Your task to perform on an android device: toggle improve location accuracy Image 0: 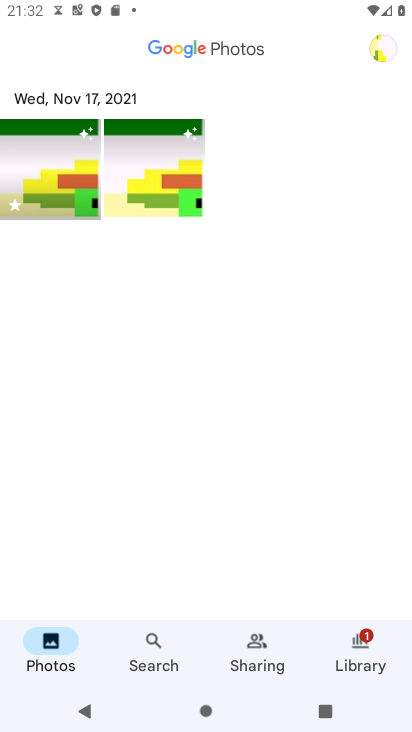
Step 0: press home button
Your task to perform on an android device: toggle improve location accuracy Image 1: 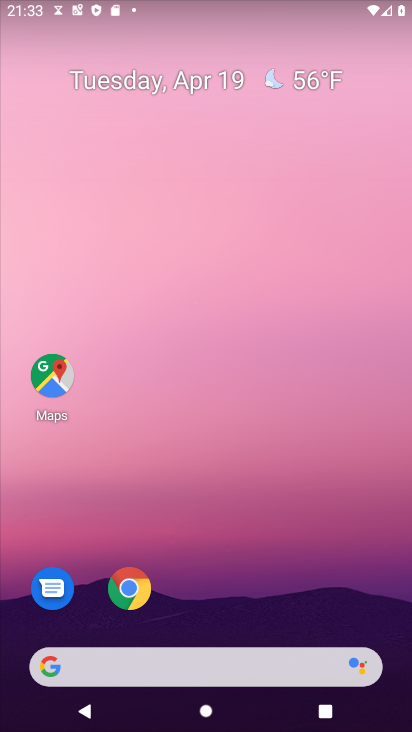
Step 1: drag from (203, 603) to (291, 43)
Your task to perform on an android device: toggle improve location accuracy Image 2: 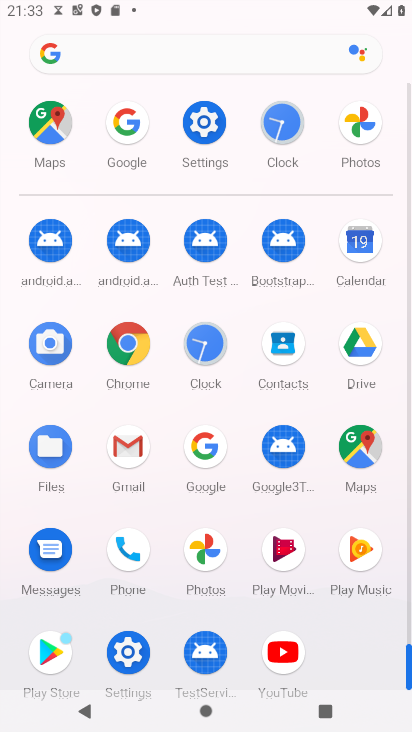
Step 2: click (203, 122)
Your task to perform on an android device: toggle improve location accuracy Image 3: 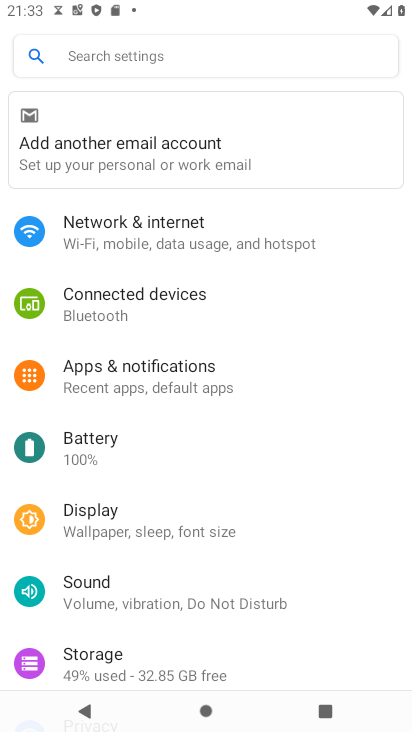
Step 3: drag from (168, 498) to (233, 396)
Your task to perform on an android device: toggle improve location accuracy Image 4: 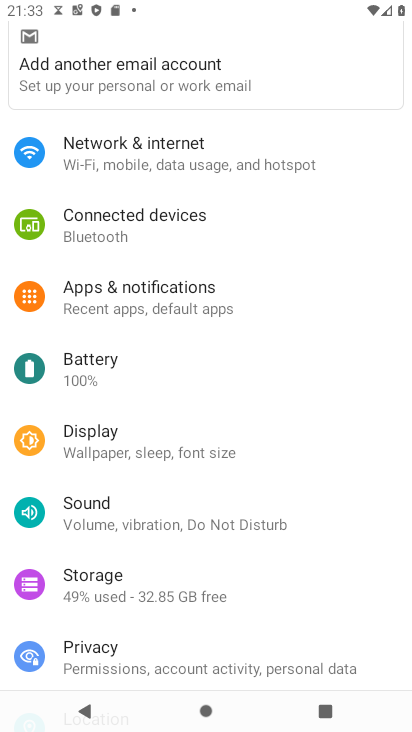
Step 4: drag from (152, 488) to (200, 370)
Your task to perform on an android device: toggle improve location accuracy Image 5: 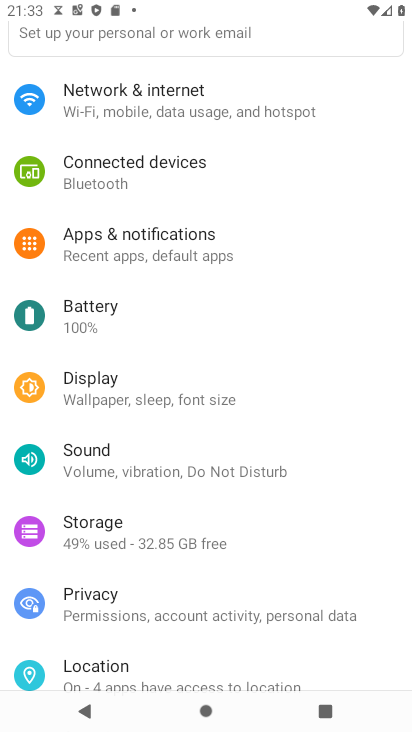
Step 5: drag from (169, 570) to (257, 445)
Your task to perform on an android device: toggle improve location accuracy Image 6: 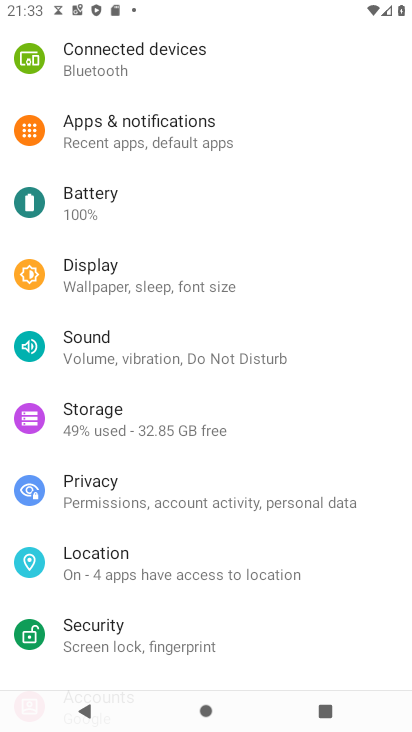
Step 6: click (146, 568)
Your task to perform on an android device: toggle improve location accuracy Image 7: 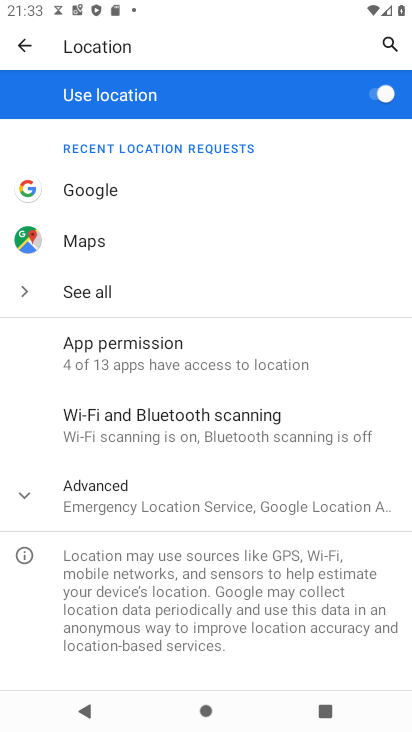
Step 7: click (151, 506)
Your task to perform on an android device: toggle improve location accuracy Image 8: 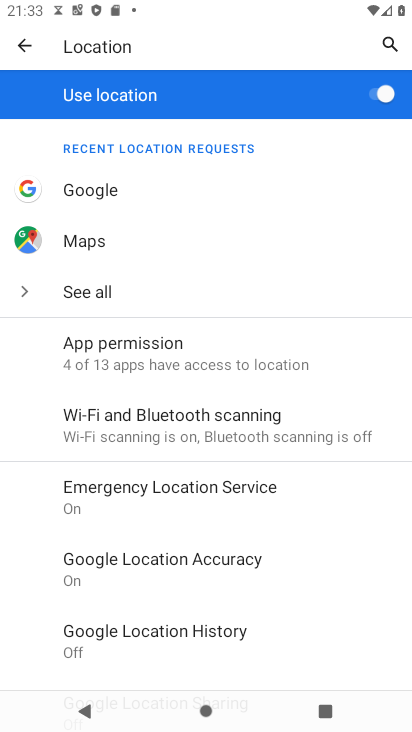
Step 8: drag from (152, 619) to (198, 532)
Your task to perform on an android device: toggle improve location accuracy Image 9: 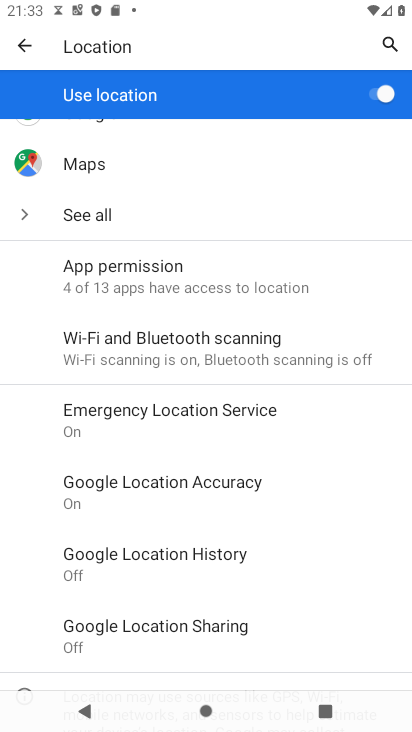
Step 9: click (200, 488)
Your task to perform on an android device: toggle improve location accuracy Image 10: 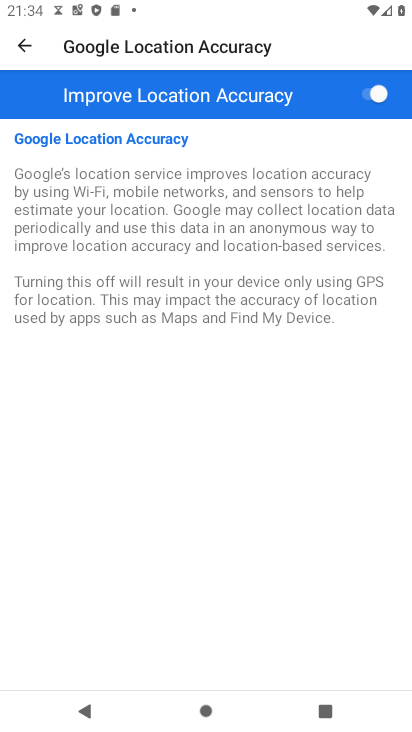
Step 10: click (382, 92)
Your task to perform on an android device: toggle improve location accuracy Image 11: 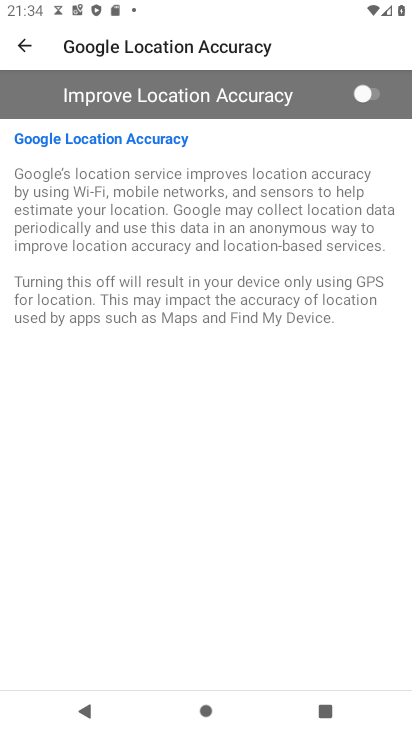
Step 11: task complete